Your task to perform on an android device: Go to Android settings Image 0: 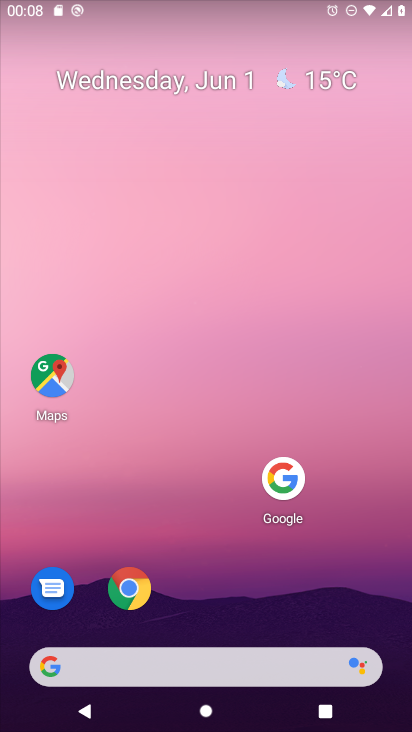
Step 0: press home button
Your task to perform on an android device: Go to Android settings Image 1: 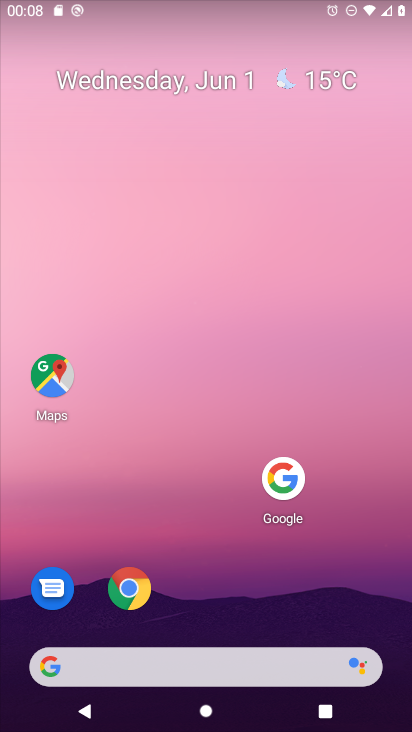
Step 1: drag from (121, 661) to (299, 162)
Your task to perform on an android device: Go to Android settings Image 2: 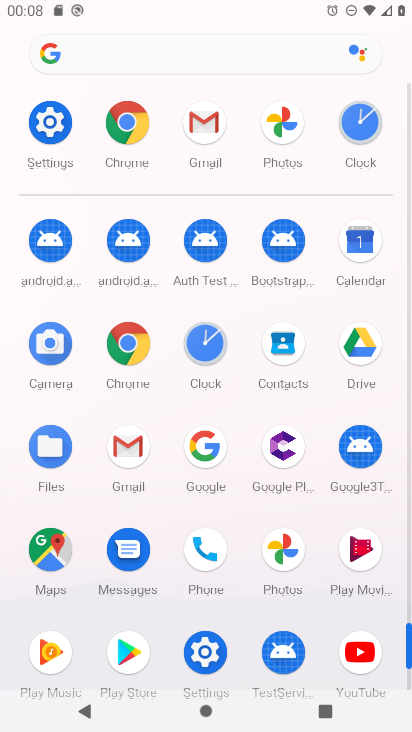
Step 2: click (45, 125)
Your task to perform on an android device: Go to Android settings Image 3: 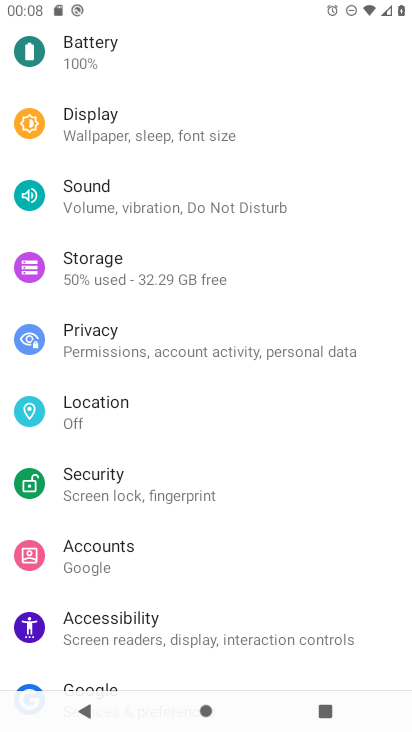
Step 3: task complete